Your task to perform on an android device: Open display settings Image 0: 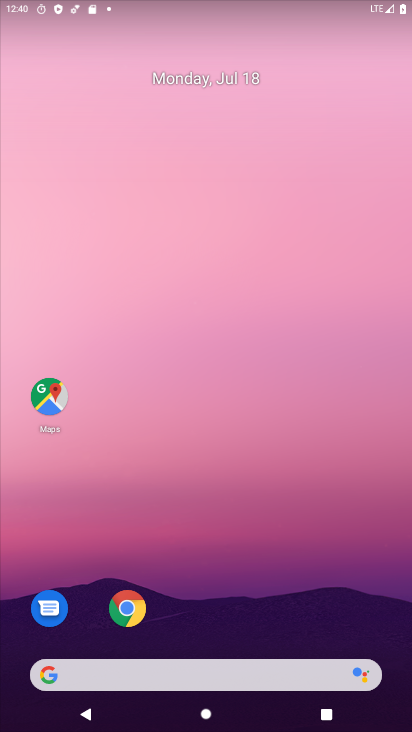
Step 0: drag from (237, 626) to (304, 22)
Your task to perform on an android device: Open display settings Image 1: 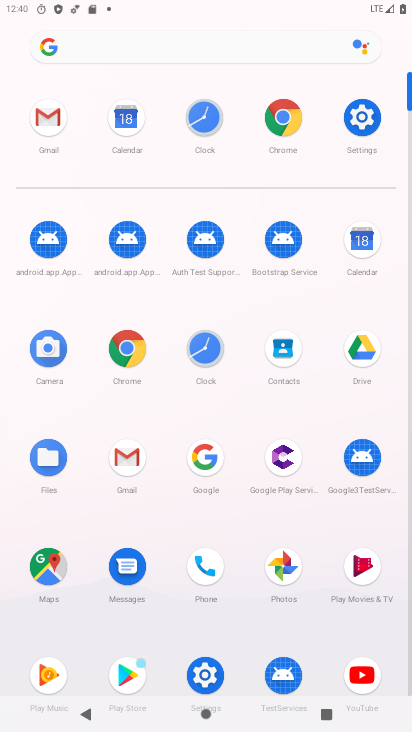
Step 1: click (360, 116)
Your task to perform on an android device: Open display settings Image 2: 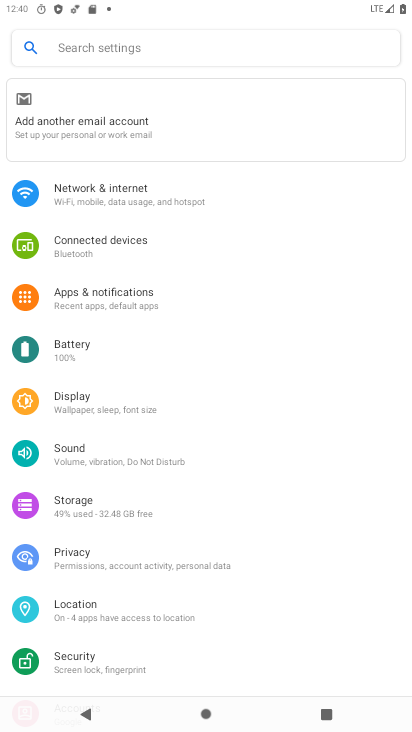
Step 2: click (78, 410)
Your task to perform on an android device: Open display settings Image 3: 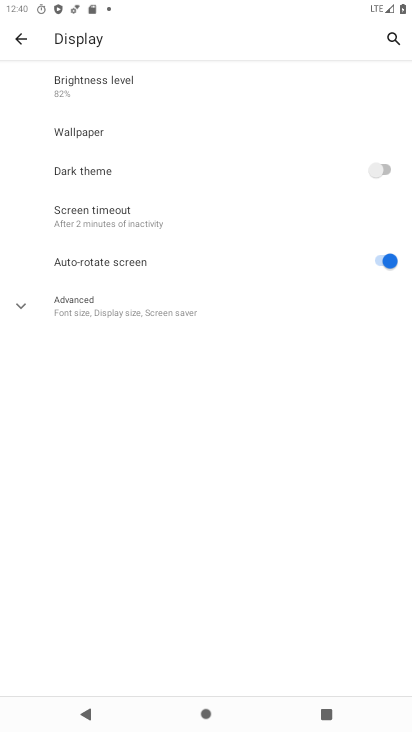
Step 3: task complete